Your task to perform on an android device: turn off smart reply in the gmail app Image 0: 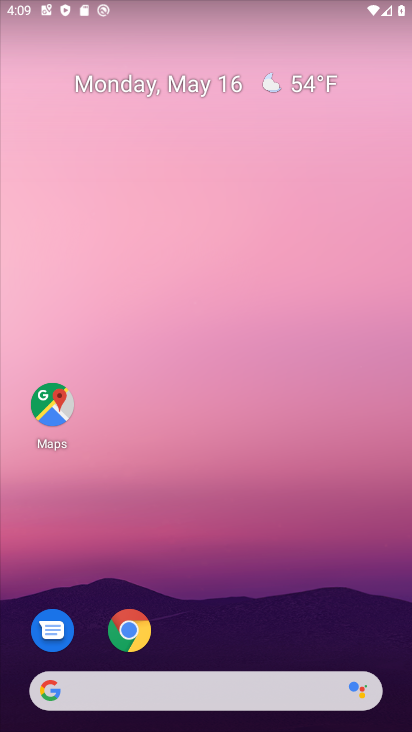
Step 0: drag from (237, 639) to (213, 10)
Your task to perform on an android device: turn off smart reply in the gmail app Image 1: 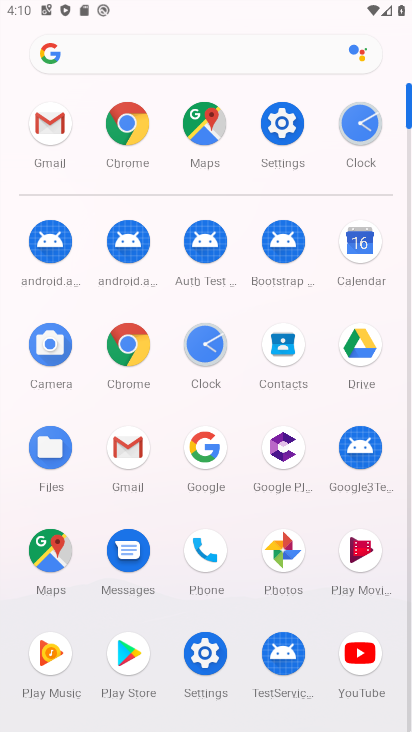
Step 1: click (47, 122)
Your task to perform on an android device: turn off smart reply in the gmail app Image 2: 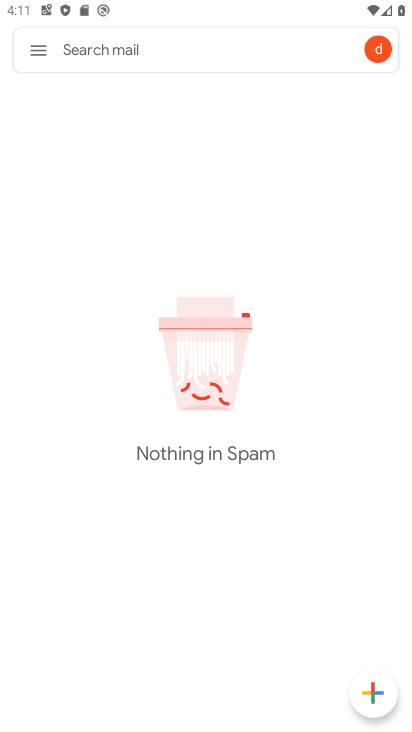
Step 2: click (40, 43)
Your task to perform on an android device: turn off smart reply in the gmail app Image 3: 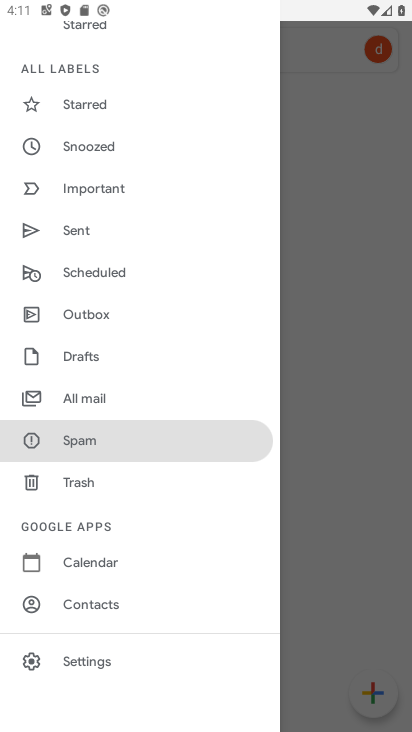
Step 3: click (114, 658)
Your task to perform on an android device: turn off smart reply in the gmail app Image 4: 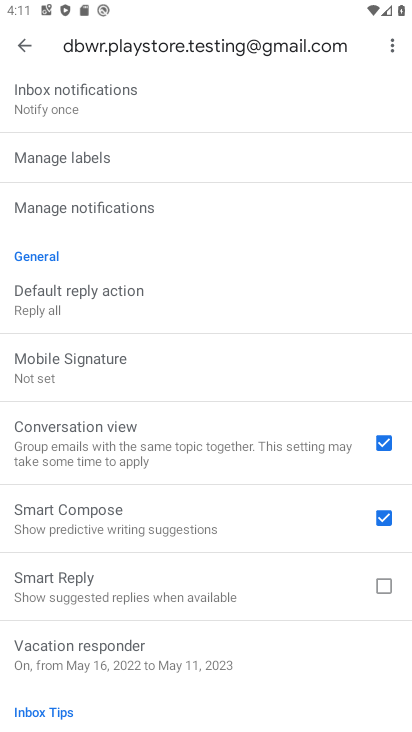
Step 4: task complete